Your task to perform on an android device: Open Chrome and go to settings Image 0: 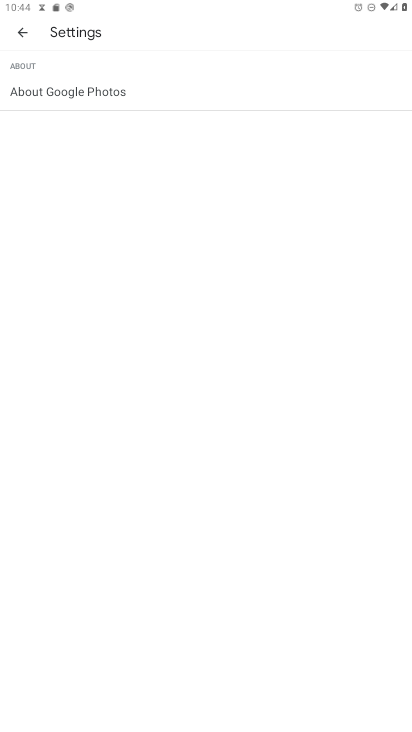
Step 0: press home button
Your task to perform on an android device: Open Chrome and go to settings Image 1: 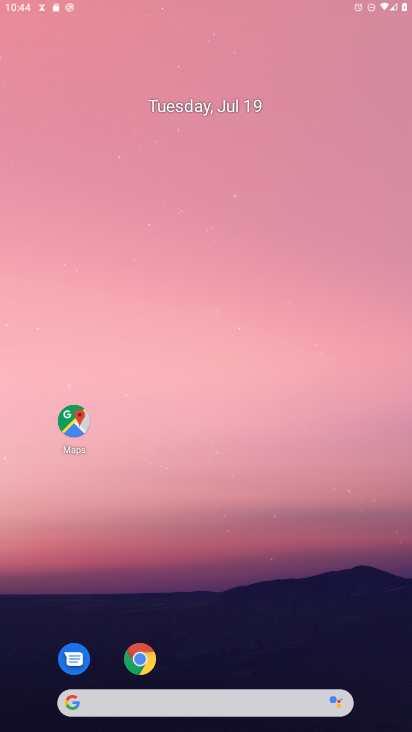
Step 1: drag from (251, 631) to (236, 157)
Your task to perform on an android device: Open Chrome and go to settings Image 2: 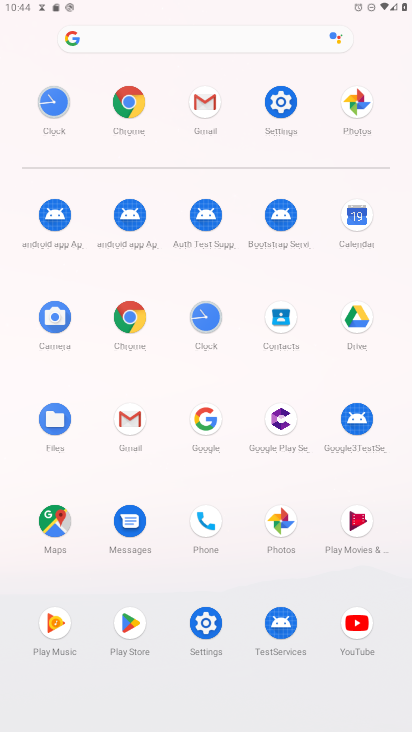
Step 2: click (131, 100)
Your task to perform on an android device: Open Chrome and go to settings Image 3: 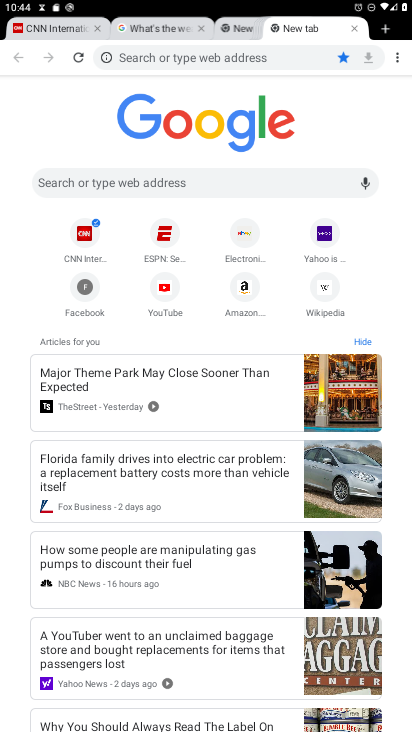
Step 3: click (396, 52)
Your task to perform on an android device: Open Chrome and go to settings Image 4: 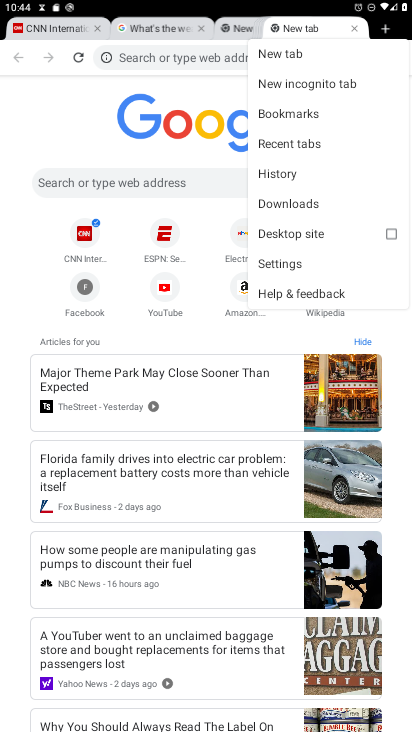
Step 4: click (280, 262)
Your task to perform on an android device: Open Chrome and go to settings Image 5: 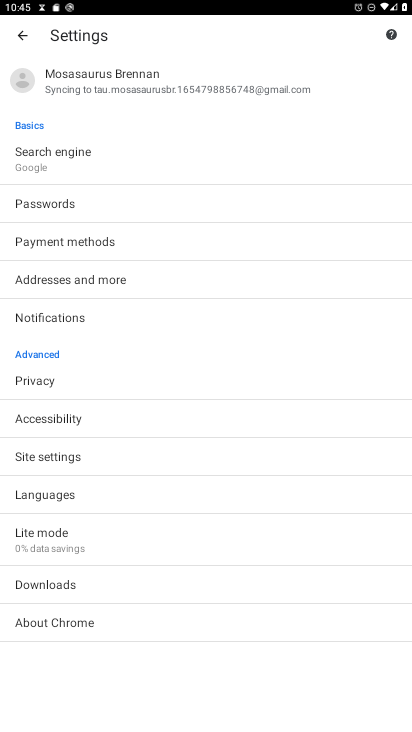
Step 5: task complete